Your task to perform on an android device: Open Wikipedia Image 0: 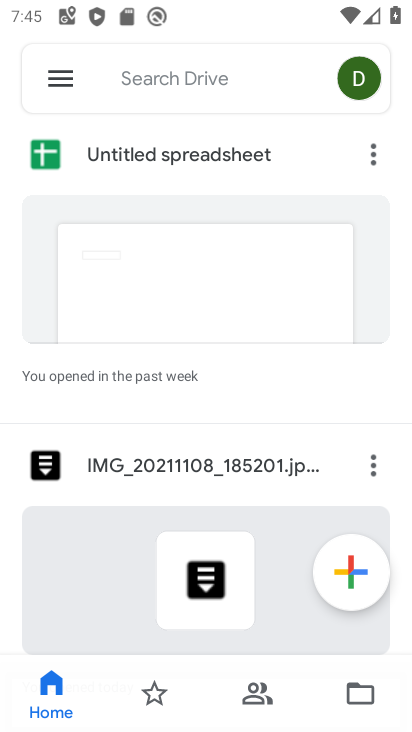
Step 0: press home button
Your task to perform on an android device: Open Wikipedia Image 1: 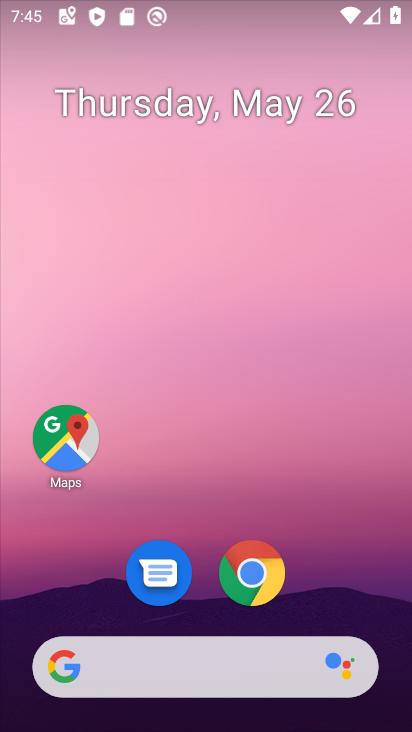
Step 1: click (256, 573)
Your task to perform on an android device: Open Wikipedia Image 2: 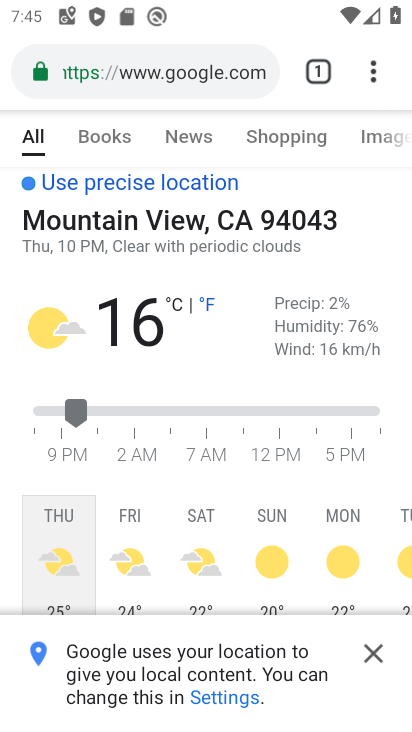
Step 2: click (203, 76)
Your task to perform on an android device: Open Wikipedia Image 3: 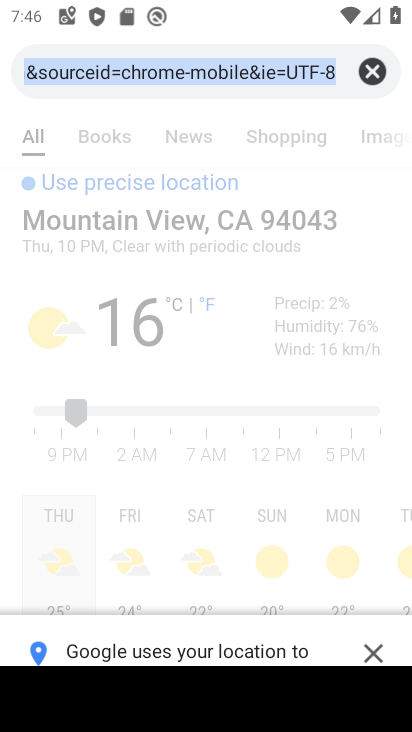
Step 3: type "wikipedia"
Your task to perform on an android device: Open Wikipedia Image 4: 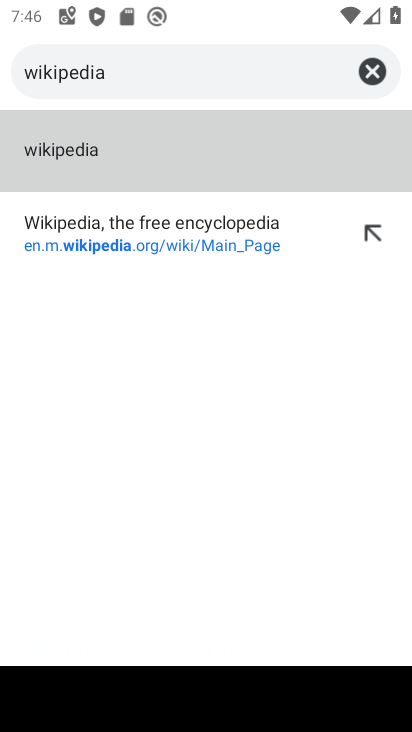
Step 4: click (227, 246)
Your task to perform on an android device: Open Wikipedia Image 5: 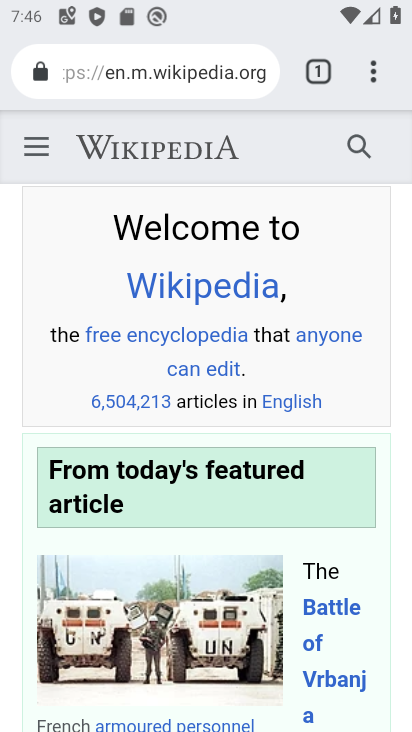
Step 5: task complete